Your task to perform on an android device: Go to sound settings Image 0: 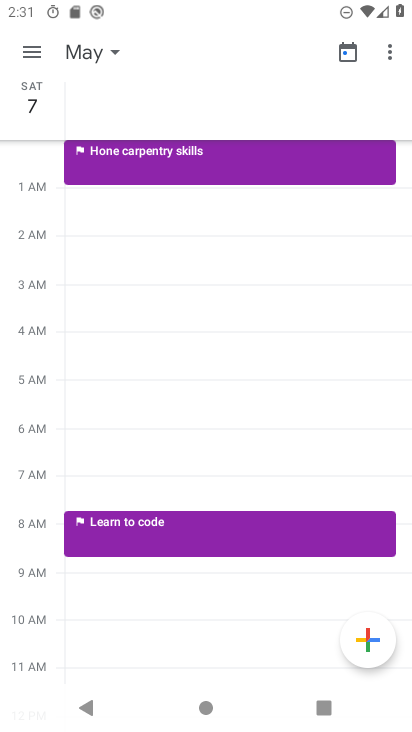
Step 0: press home button
Your task to perform on an android device: Go to sound settings Image 1: 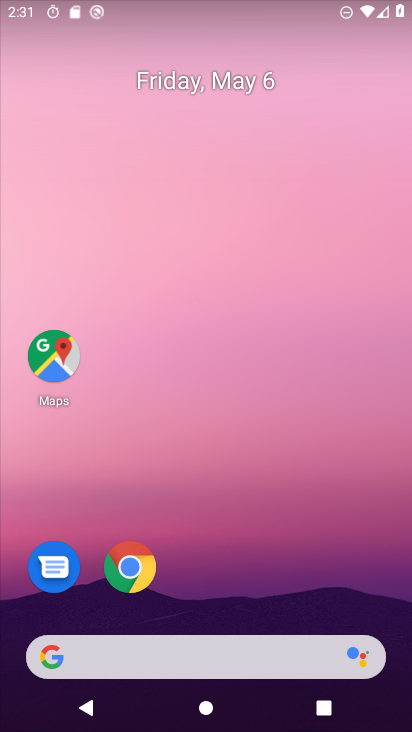
Step 1: drag from (276, 680) to (321, 212)
Your task to perform on an android device: Go to sound settings Image 2: 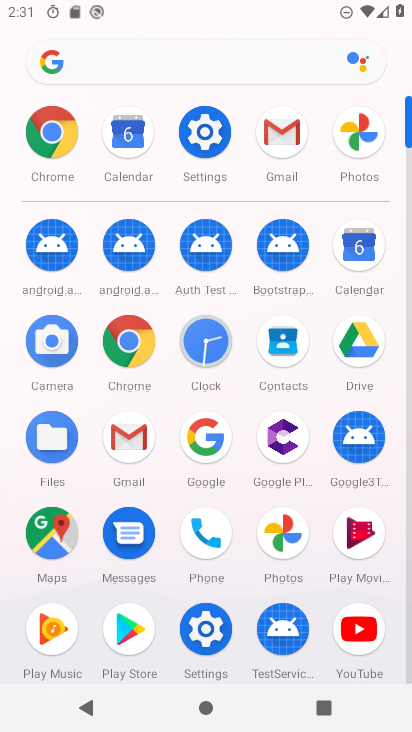
Step 2: click (206, 144)
Your task to perform on an android device: Go to sound settings Image 3: 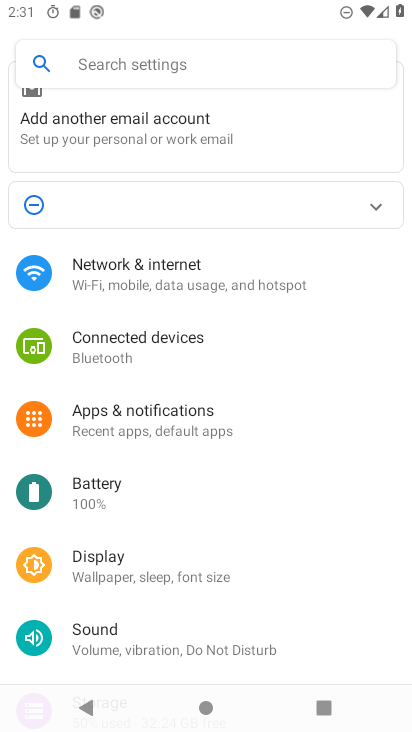
Step 3: click (144, 67)
Your task to perform on an android device: Go to sound settings Image 4: 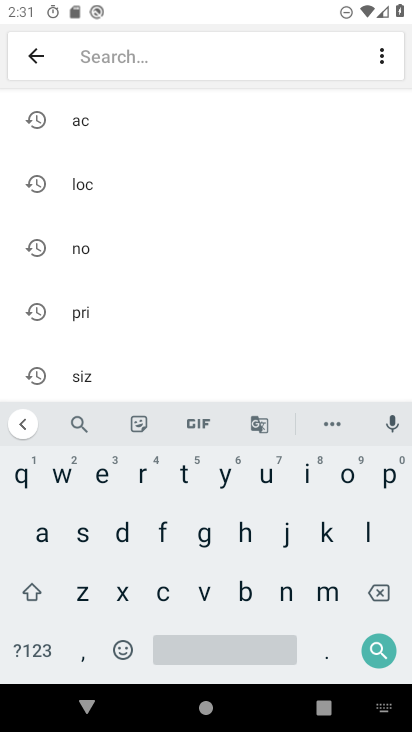
Step 4: click (81, 537)
Your task to perform on an android device: Go to sound settings Image 5: 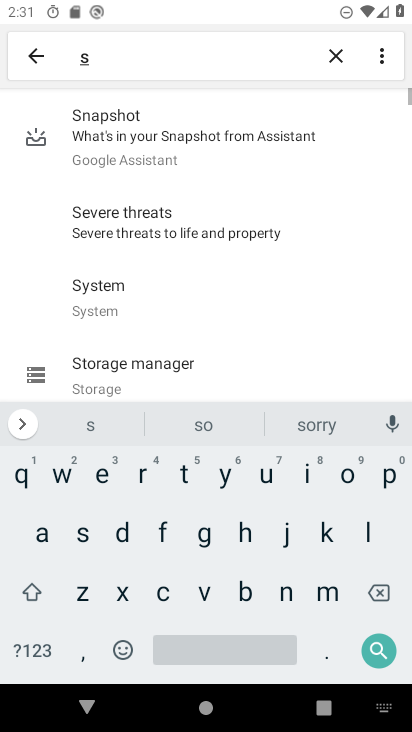
Step 5: click (343, 478)
Your task to perform on an android device: Go to sound settings Image 6: 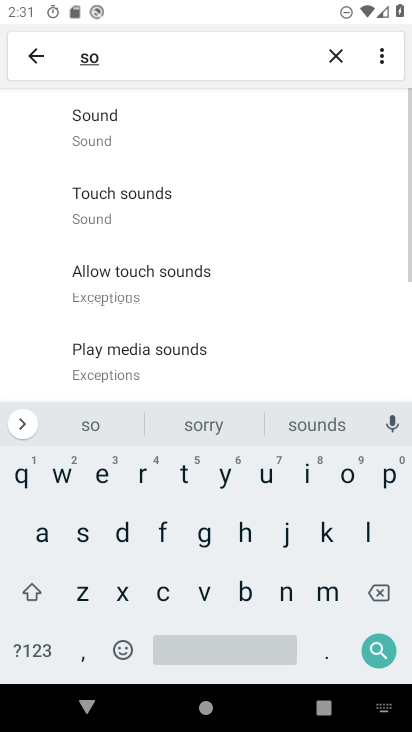
Step 6: click (125, 145)
Your task to perform on an android device: Go to sound settings Image 7: 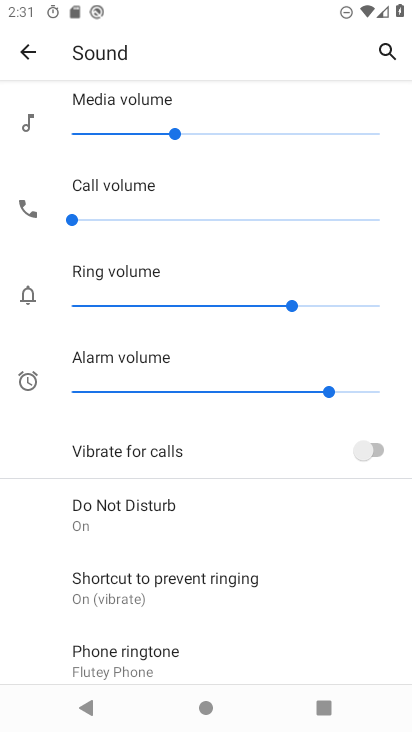
Step 7: task complete